Your task to perform on an android device: snooze an email in the gmail app Image 0: 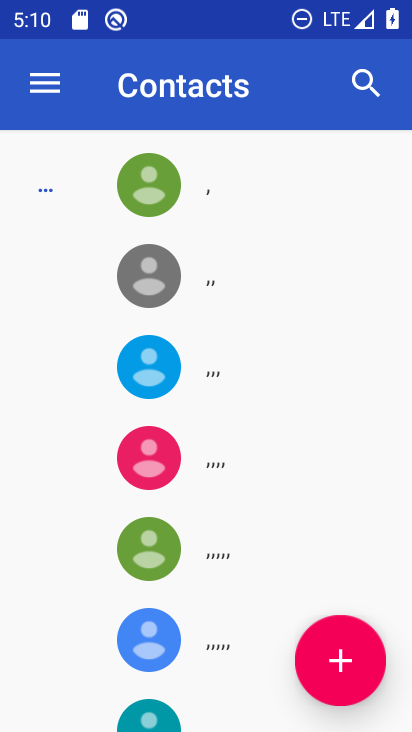
Step 0: press home button
Your task to perform on an android device: snooze an email in the gmail app Image 1: 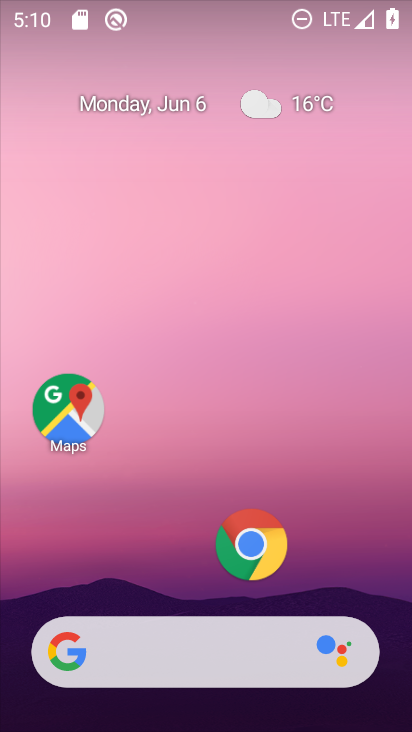
Step 1: drag from (199, 548) to (199, 18)
Your task to perform on an android device: snooze an email in the gmail app Image 2: 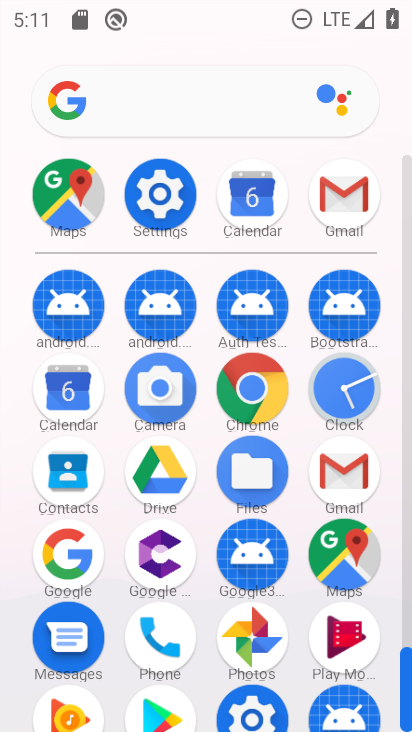
Step 2: click (339, 456)
Your task to perform on an android device: snooze an email in the gmail app Image 3: 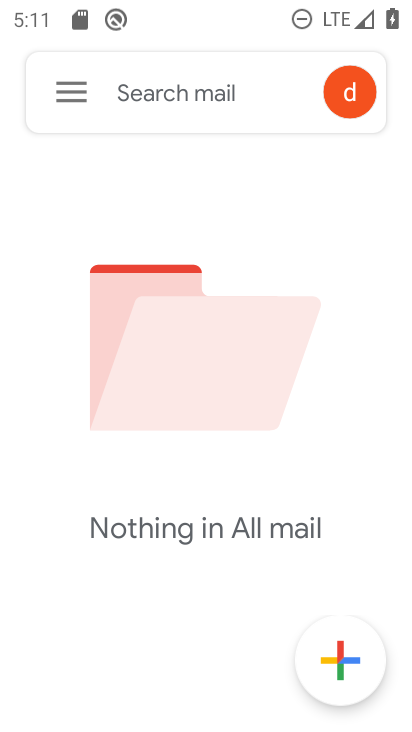
Step 3: task complete